Your task to perform on an android device: Search for seafood restaurants on Google Maps Image 0: 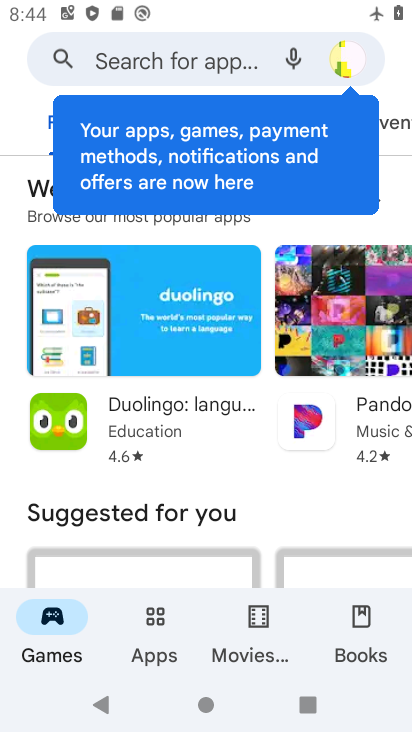
Step 0: press home button
Your task to perform on an android device: Search for seafood restaurants on Google Maps Image 1: 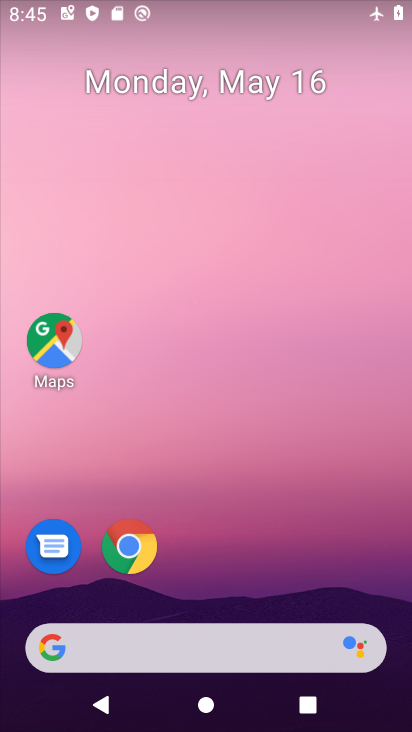
Step 1: drag from (307, 685) to (386, 183)
Your task to perform on an android device: Search for seafood restaurants on Google Maps Image 2: 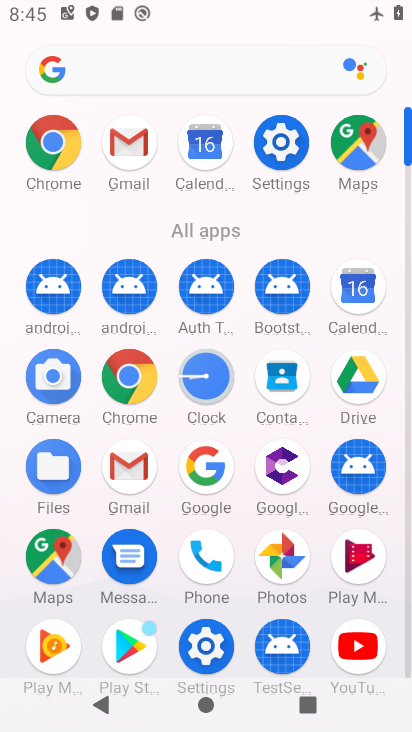
Step 2: click (340, 162)
Your task to perform on an android device: Search for seafood restaurants on Google Maps Image 3: 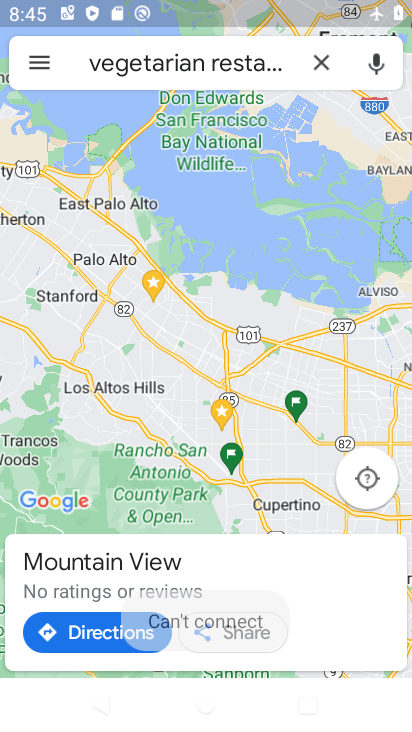
Step 3: click (325, 65)
Your task to perform on an android device: Search for seafood restaurants on Google Maps Image 4: 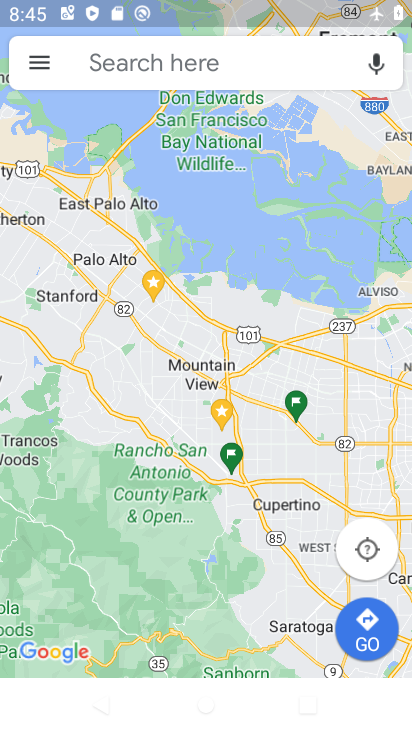
Step 4: click (224, 65)
Your task to perform on an android device: Search for seafood restaurants on Google Maps Image 5: 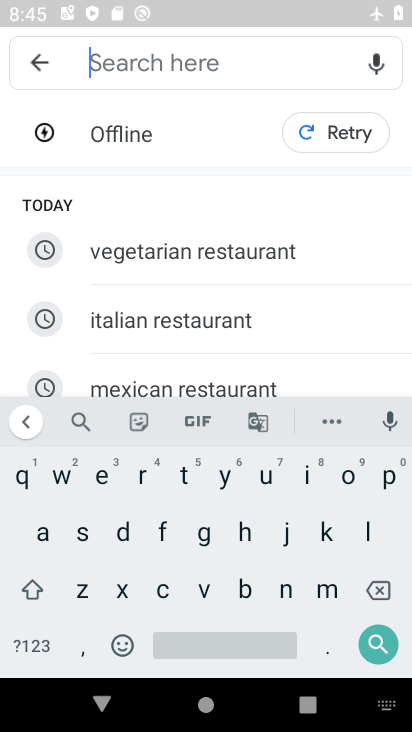
Step 5: click (85, 535)
Your task to perform on an android device: Search for seafood restaurants on Google Maps Image 6: 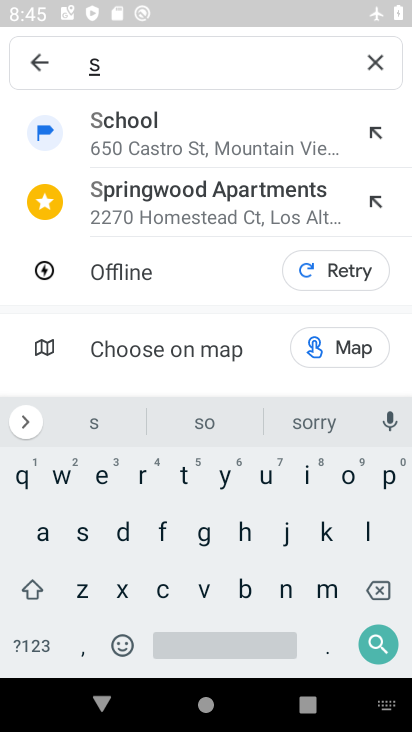
Step 6: click (88, 479)
Your task to perform on an android device: Search for seafood restaurants on Google Maps Image 7: 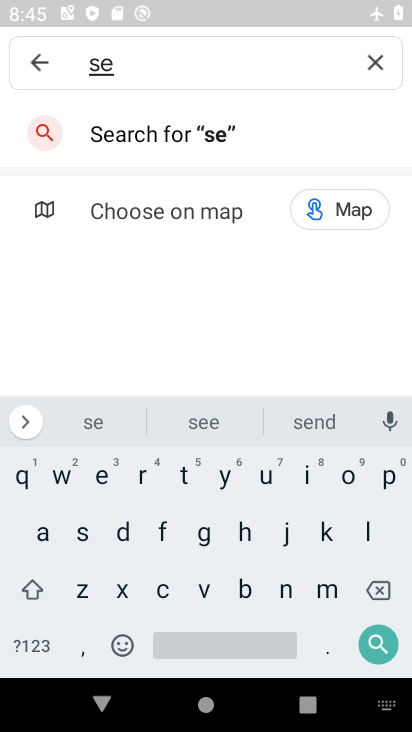
Step 7: press home button
Your task to perform on an android device: Search for seafood restaurants on Google Maps Image 8: 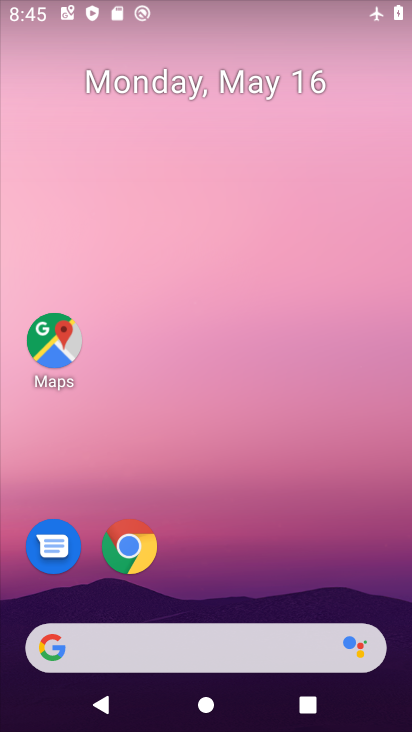
Step 8: drag from (275, 660) to (296, 264)
Your task to perform on an android device: Search for seafood restaurants on Google Maps Image 9: 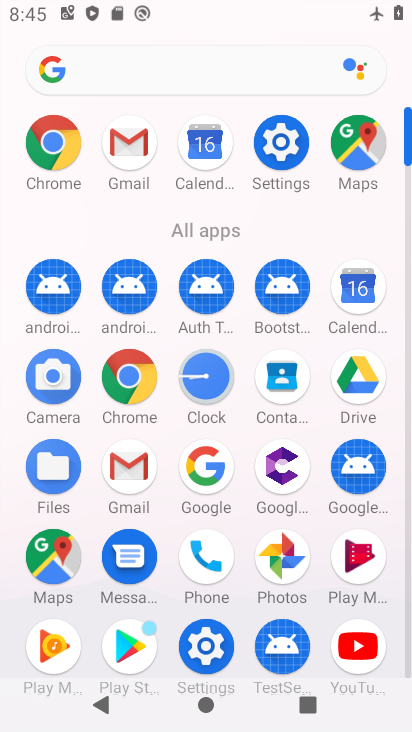
Step 9: click (294, 142)
Your task to perform on an android device: Search for seafood restaurants on Google Maps Image 10: 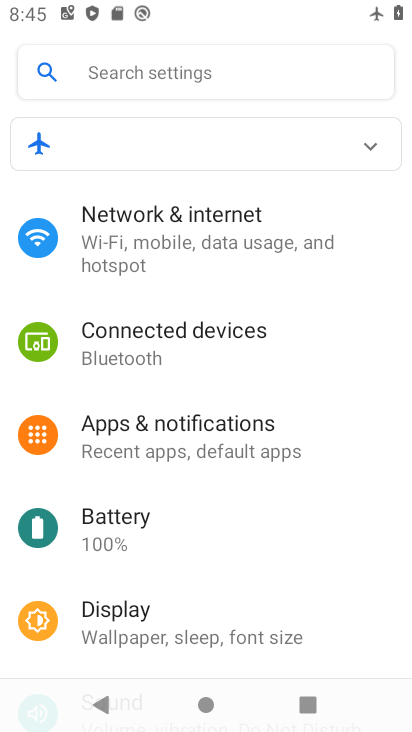
Step 10: click (375, 141)
Your task to perform on an android device: Search for seafood restaurants on Google Maps Image 11: 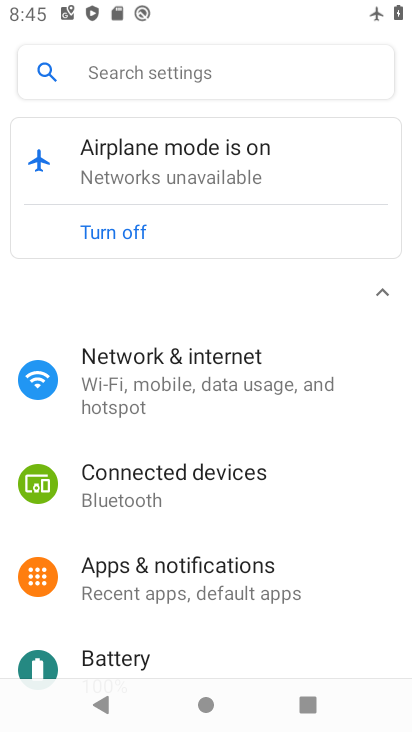
Step 11: click (128, 235)
Your task to perform on an android device: Search for seafood restaurants on Google Maps Image 12: 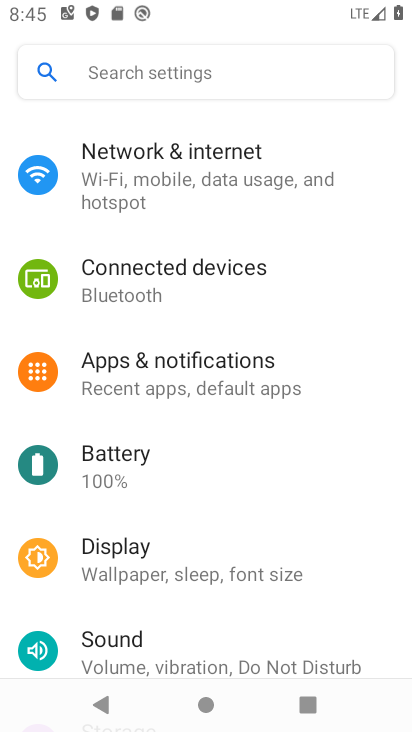
Step 12: press home button
Your task to perform on an android device: Search for seafood restaurants on Google Maps Image 13: 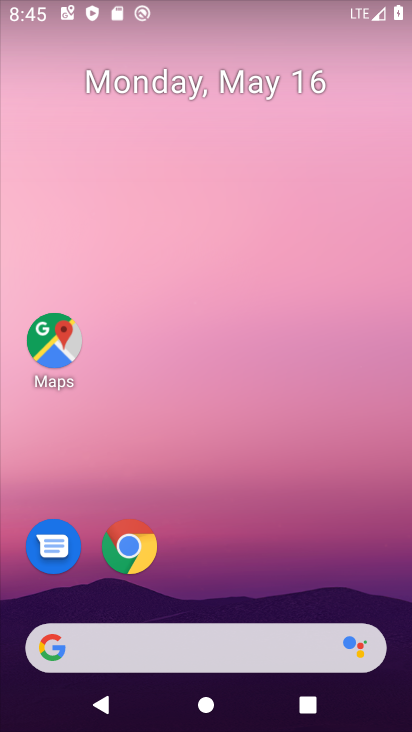
Step 13: click (57, 330)
Your task to perform on an android device: Search for seafood restaurants on Google Maps Image 14: 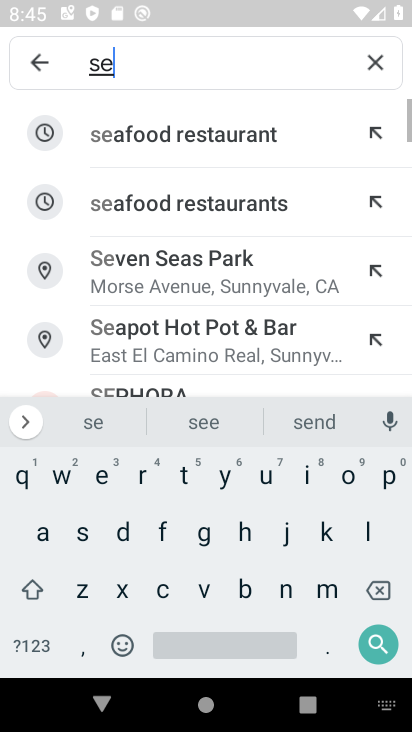
Step 14: click (221, 147)
Your task to perform on an android device: Search for seafood restaurants on Google Maps Image 15: 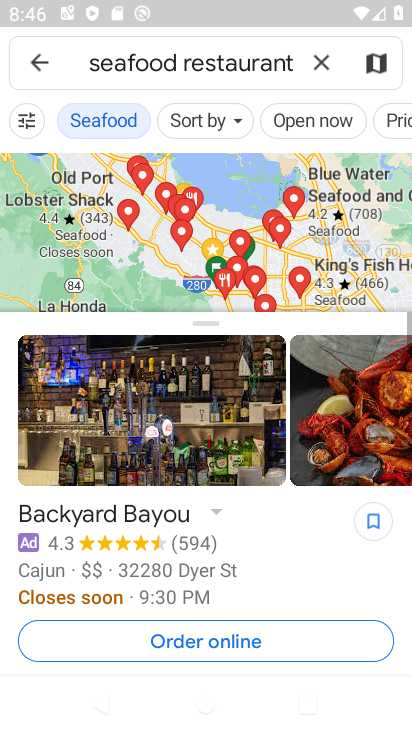
Step 15: task complete